Your task to perform on an android device: clear history in the chrome app Image 0: 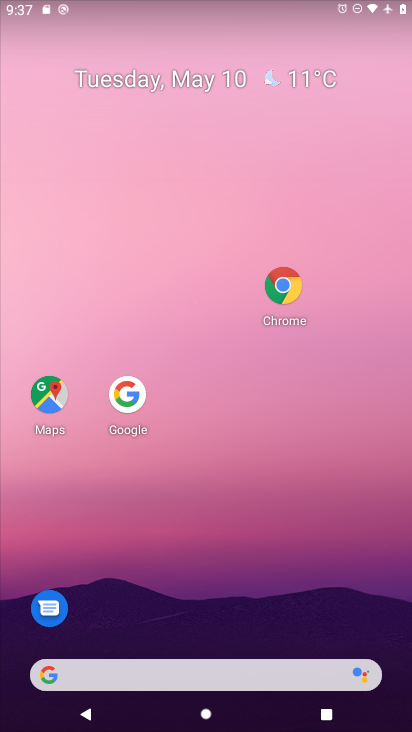
Step 0: click (283, 292)
Your task to perform on an android device: clear history in the chrome app Image 1: 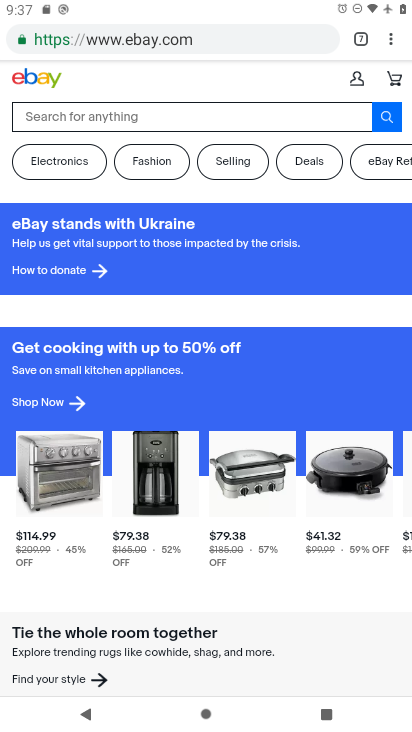
Step 1: drag from (391, 43) to (267, 226)
Your task to perform on an android device: clear history in the chrome app Image 2: 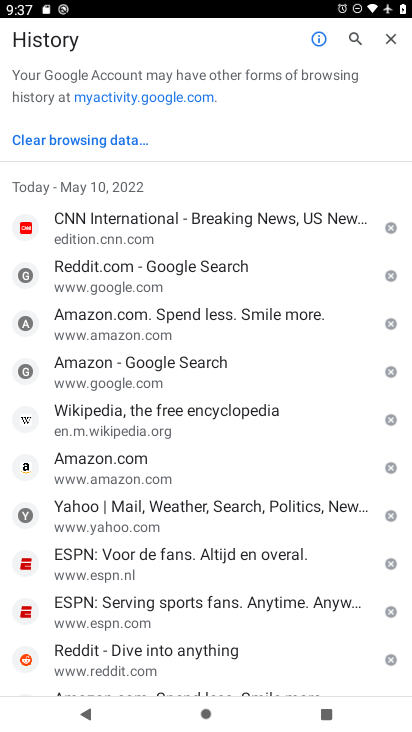
Step 2: click (120, 143)
Your task to perform on an android device: clear history in the chrome app Image 3: 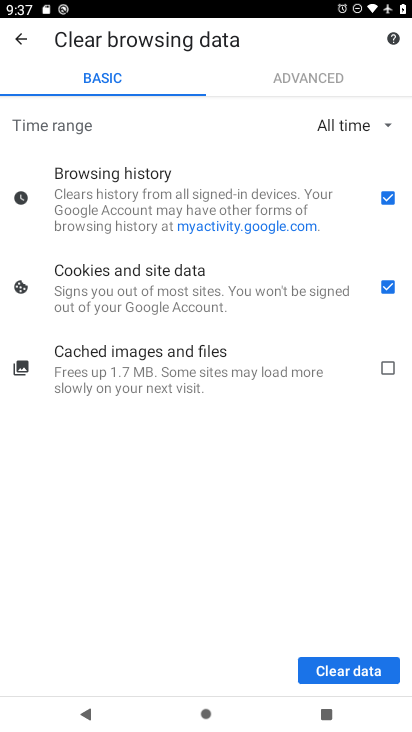
Step 3: click (388, 364)
Your task to perform on an android device: clear history in the chrome app Image 4: 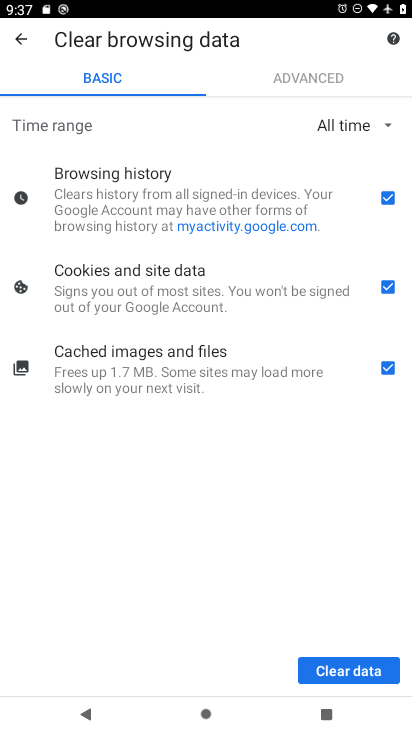
Step 4: click (348, 673)
Your task to perform on an android device: clear history in the chrome app Image 5: 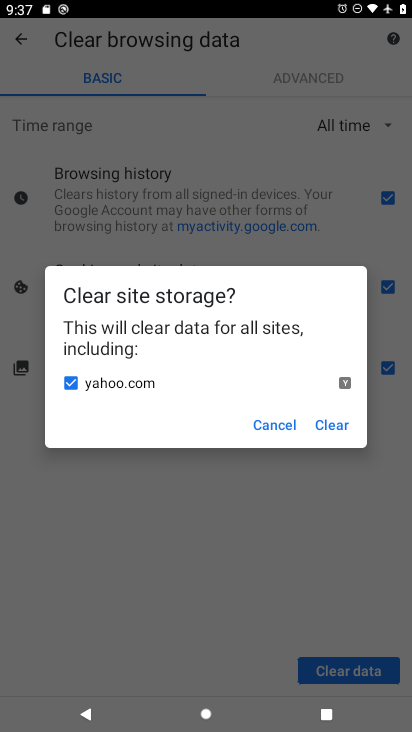
Step 5: click (324, 424)
Your task to perform on an android device: clear history in the chrome app Image 6: 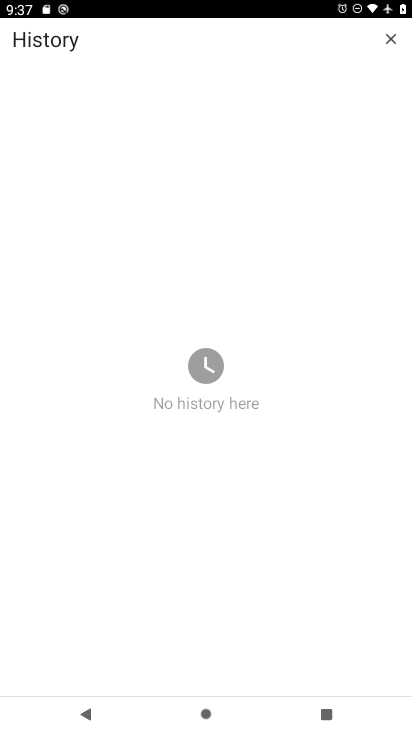
Step 6: task complete